Your task to perform on an android device: Open the web browser Image 0: 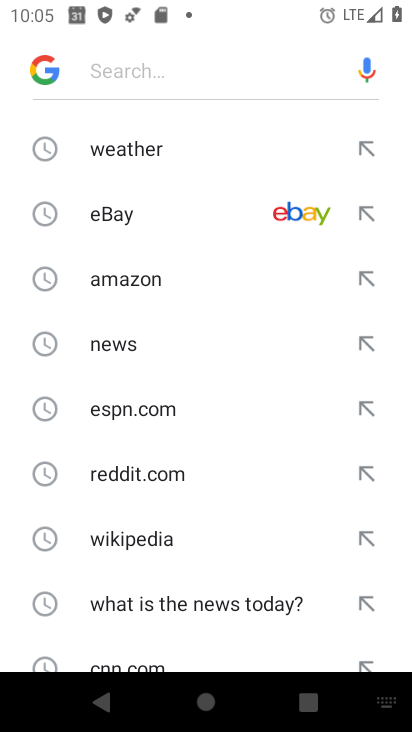
Step 0: press back button
Your task to perform on an android device: Open the web browser Image 1: 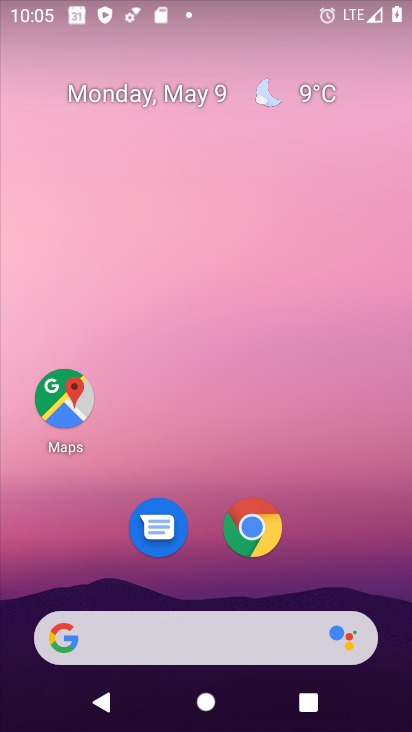
Step 1: click (250, 530)
Your task to perform on an android device: Open the web browser Image 2: 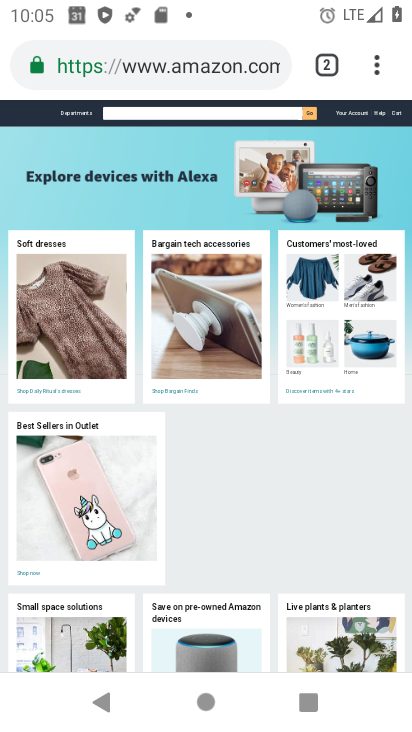
Step 2: task complete